Your task to perform on an android device: turn on the 24-hour format for clock Image 0: 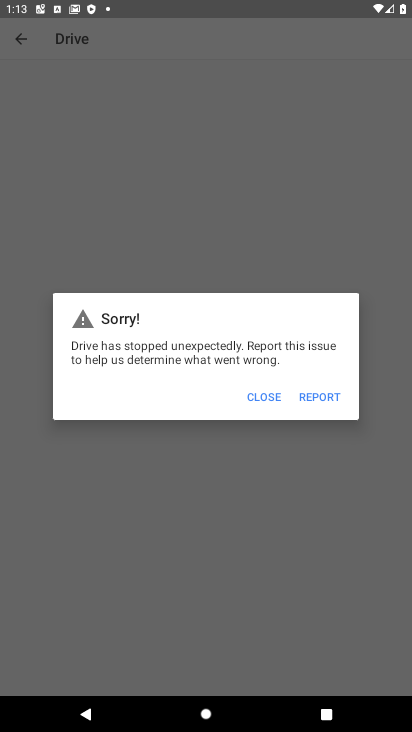
Step 0: press home button
Your task to perform on an android device: turn on the 24-hour format for clock Image 1: 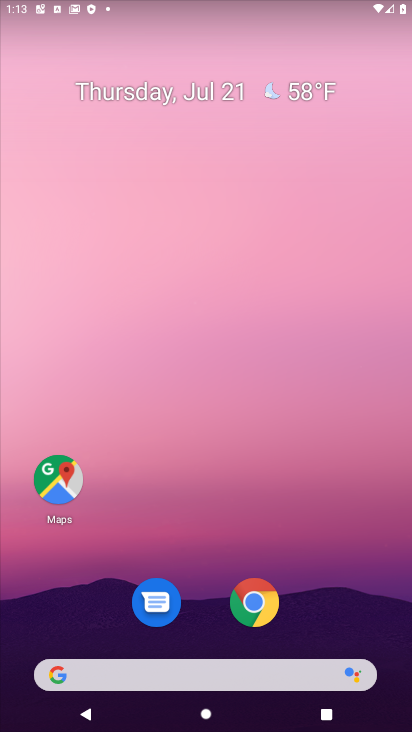
Step 1: drag from (404, 658) to (217, 11)
Your task to perform on an android device: turn on the 24-hour format for clock Image 2: 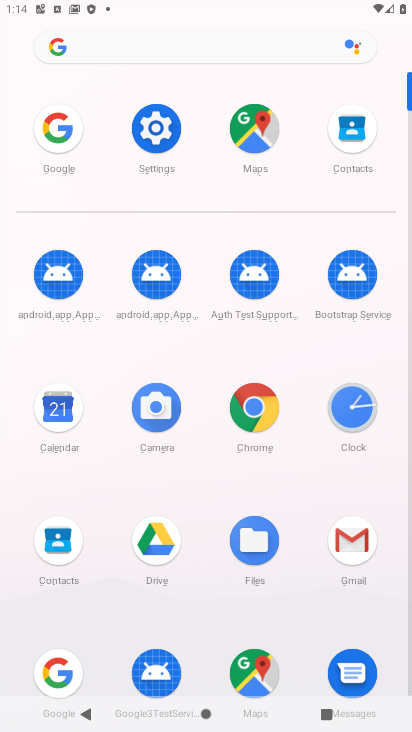
Step 2: click (338, 416)
Your task to perform on an android device: turn on the 24-hour format for clock Image 3: 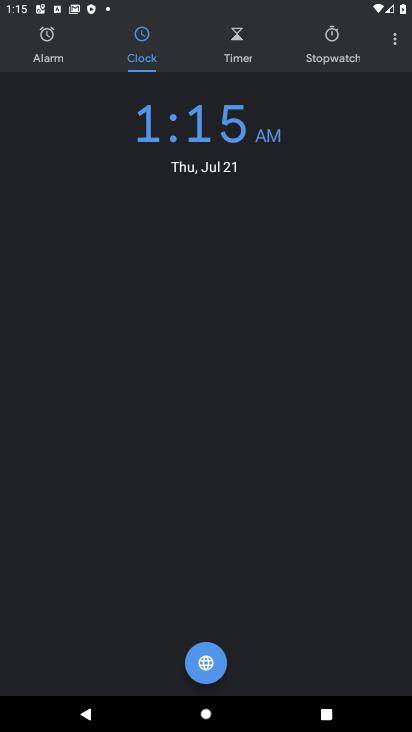
Step 3: click (400, 50)
Your task to perform on an android device: turn on the 24-hour format for clock Image 4: 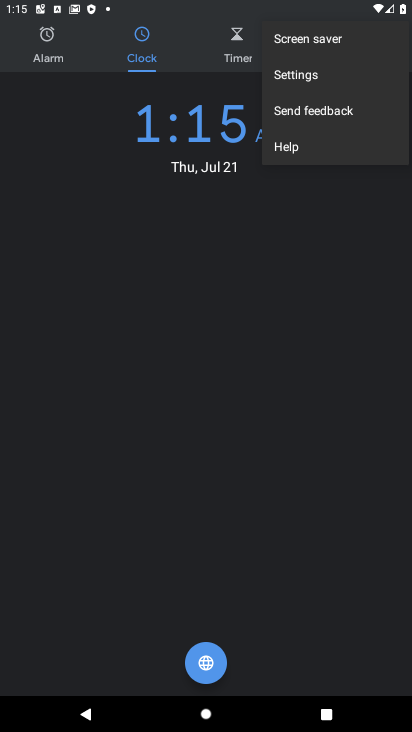
Step 4: click (318, 80)
Your task to perform on an android device: turn on the 24-hour format for clock Image 5: 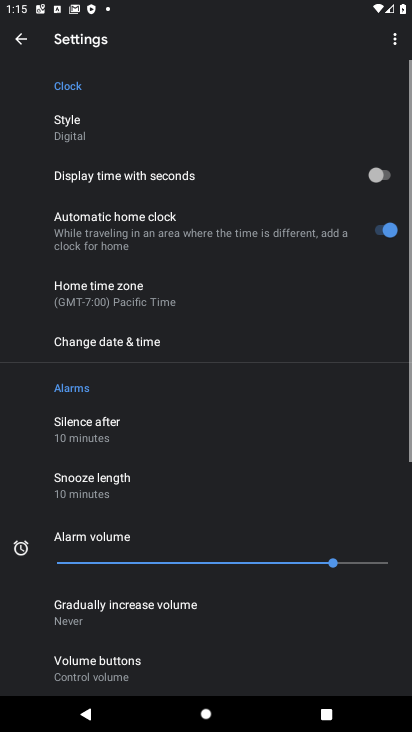
Step 5: click (131, 341)
Your task to perform on an android device: turn on the 24-hour format for clock Image 6: 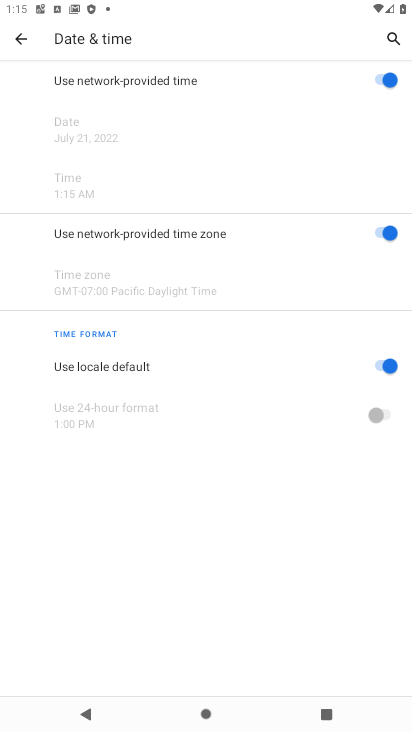
Step 6: task complete